Your task to perform on an android device: How much does the HisenseTV cost? Image 0: 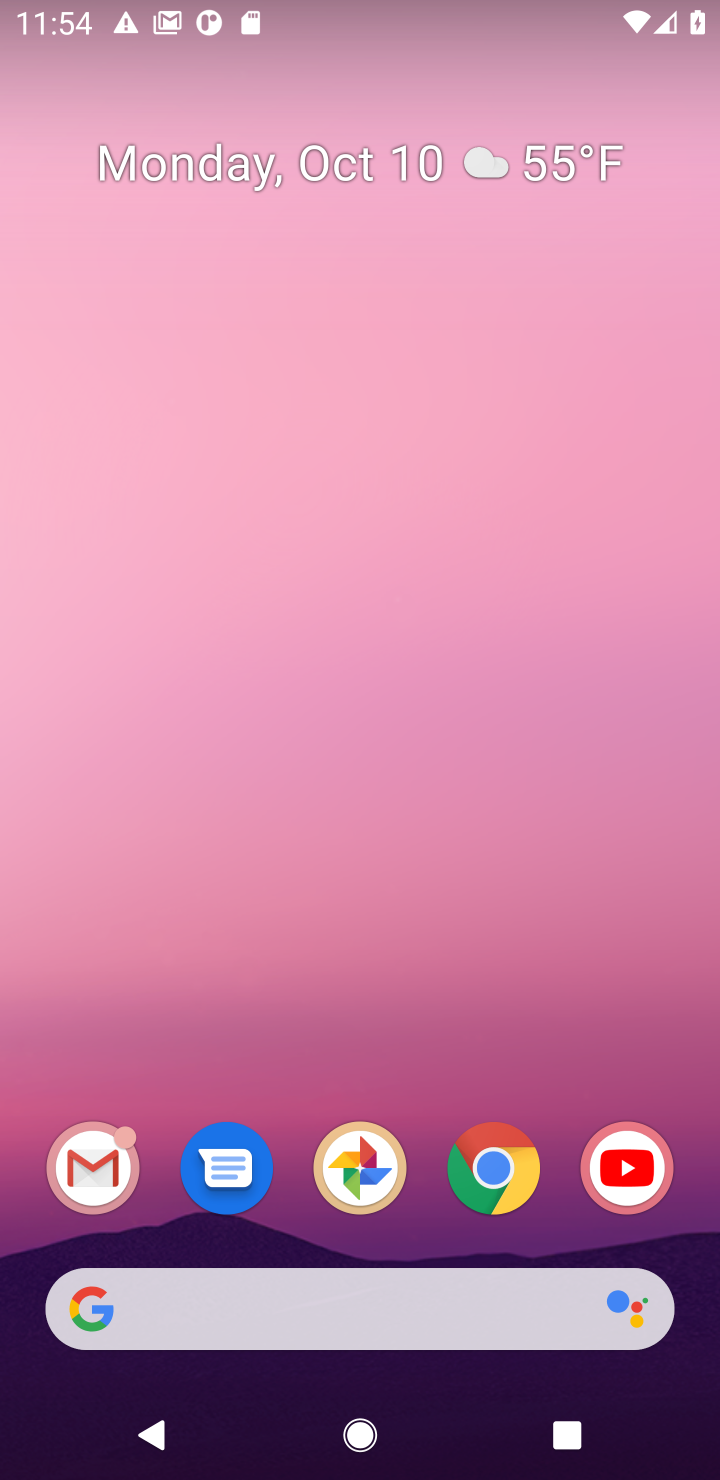
Step 0: drag from (329, 1216) to (357, 358)
Your task to perform on an android device: How much does the HisenseTV cost? Image 1: 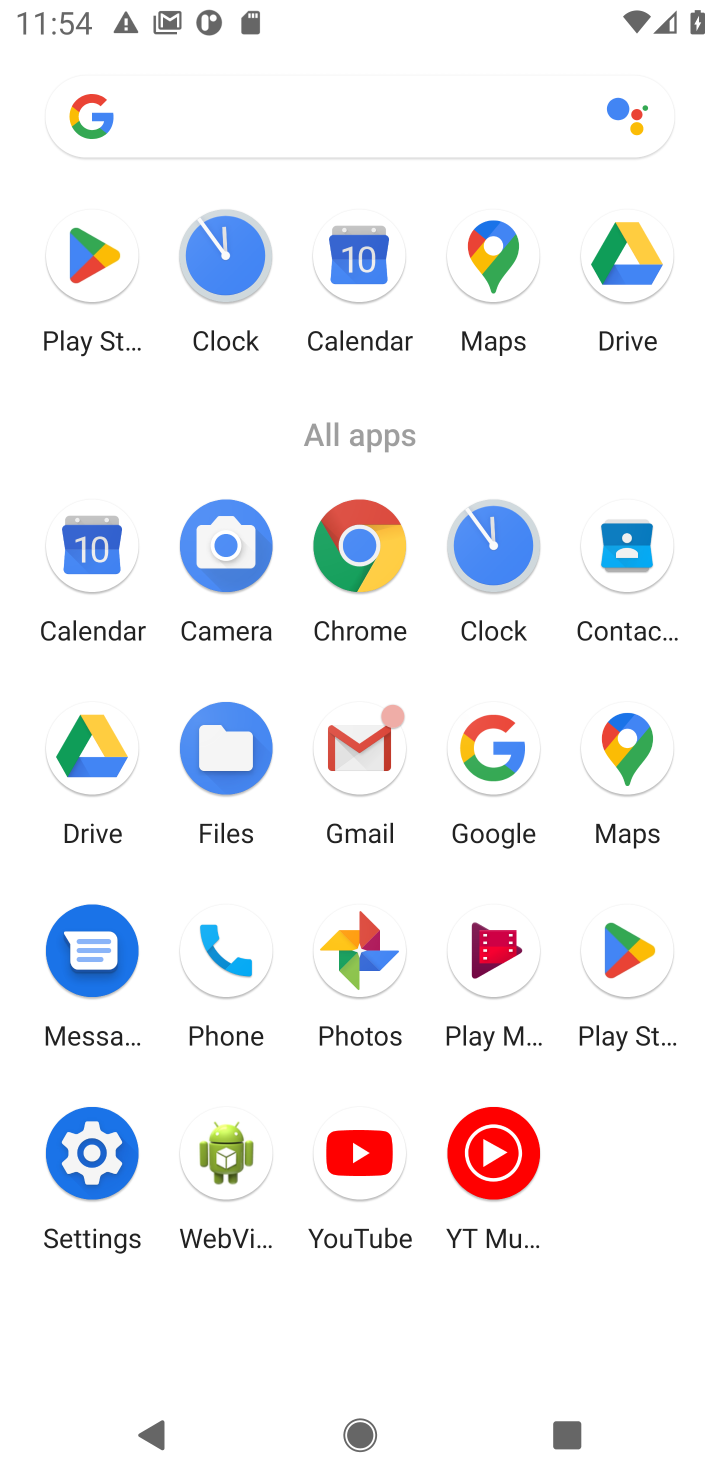
Step 1: click (524, 777)
Your task to perform on an android device: How much does the HisenseTV cost? Image 2: 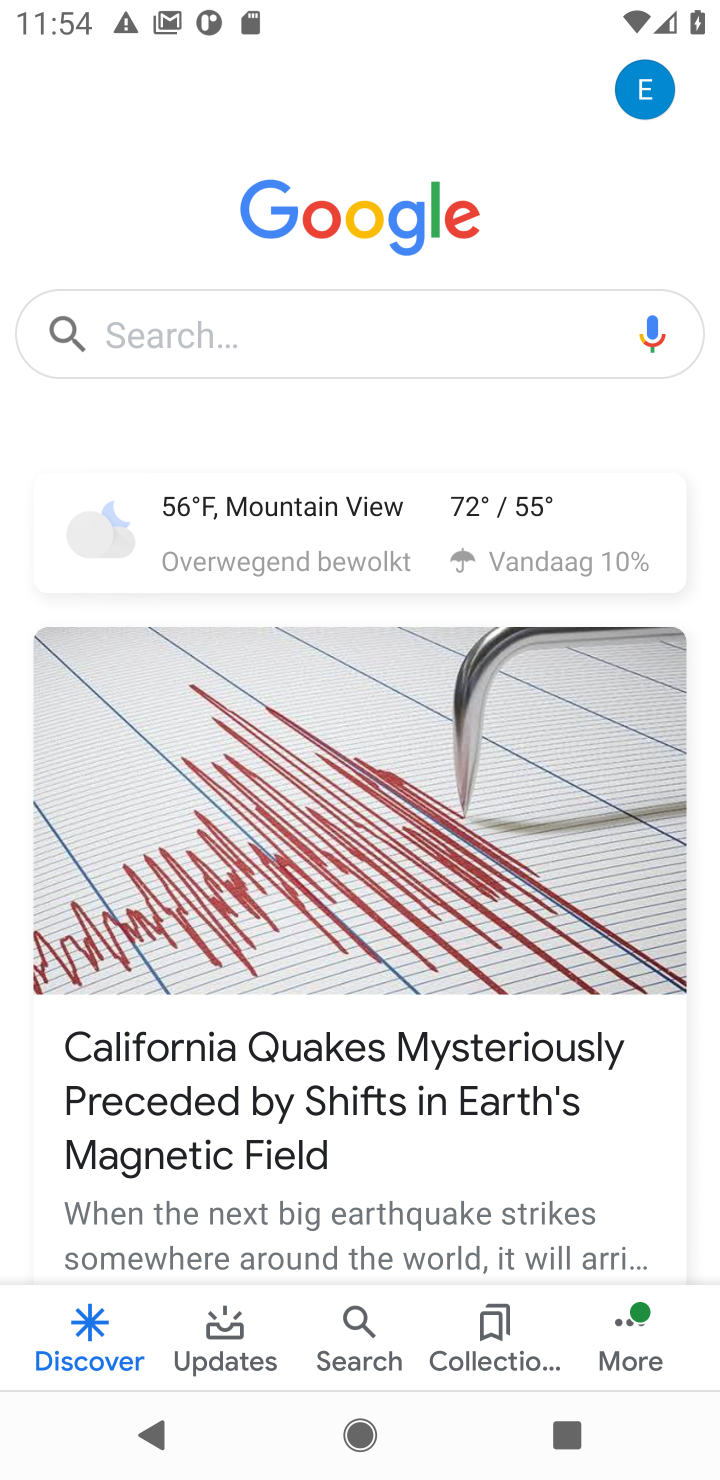
Step 2: click (421, 313)
Your task to perform on an android device: How much does the HisenseTV cost? Image 3: 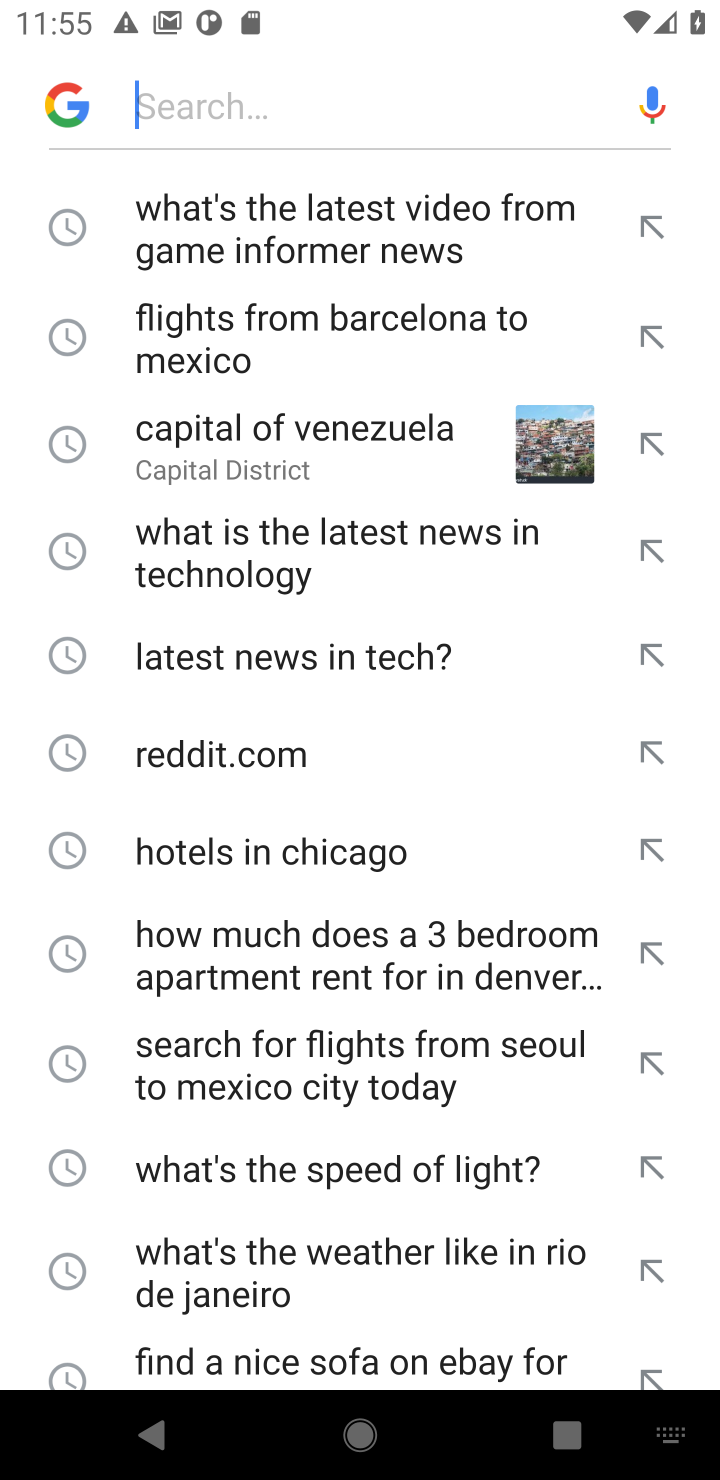
Step 3: type "HisenseTV cost?"
Your task to perform on an android device: How much does the HisenseTV cost? Image 4: 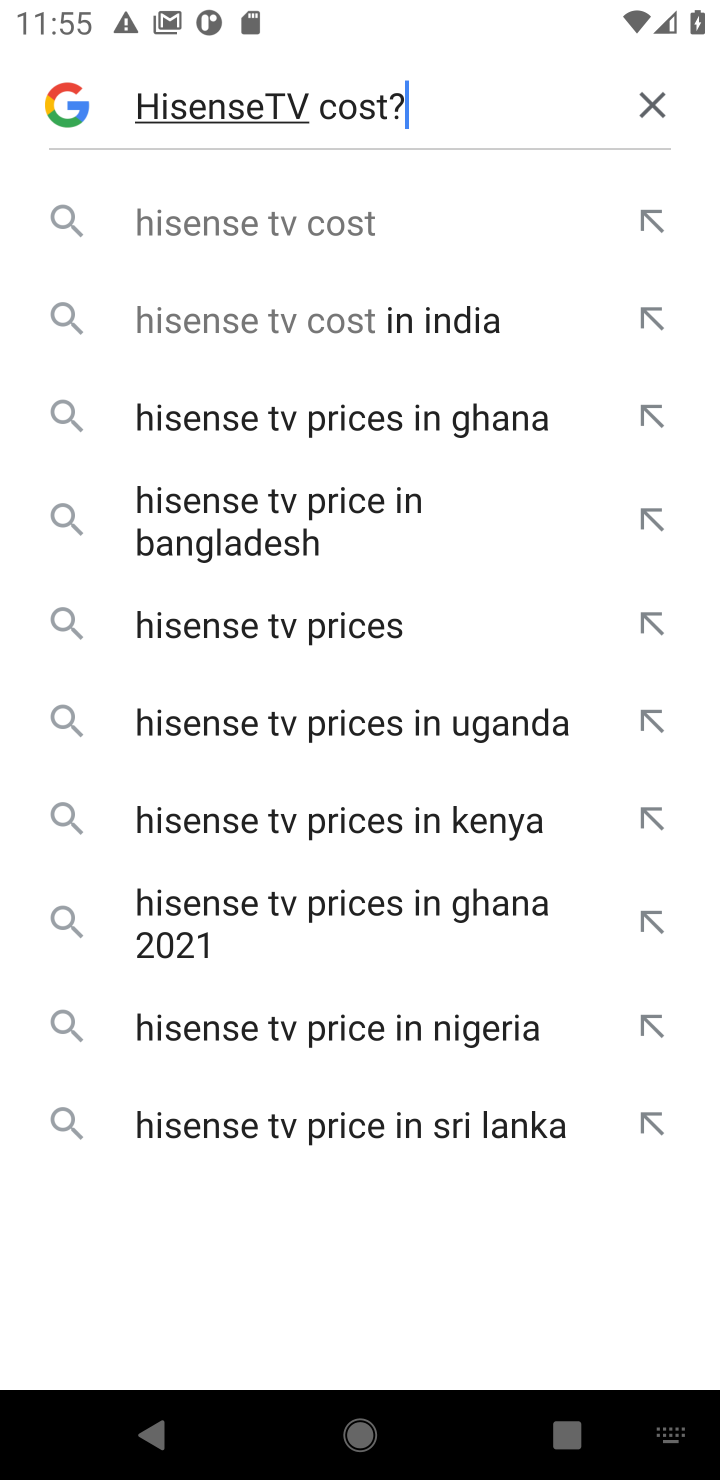
Step 4: click (408, 221)
Your task to perform on an android device: How much does the HisenseTV cost? Image 5: 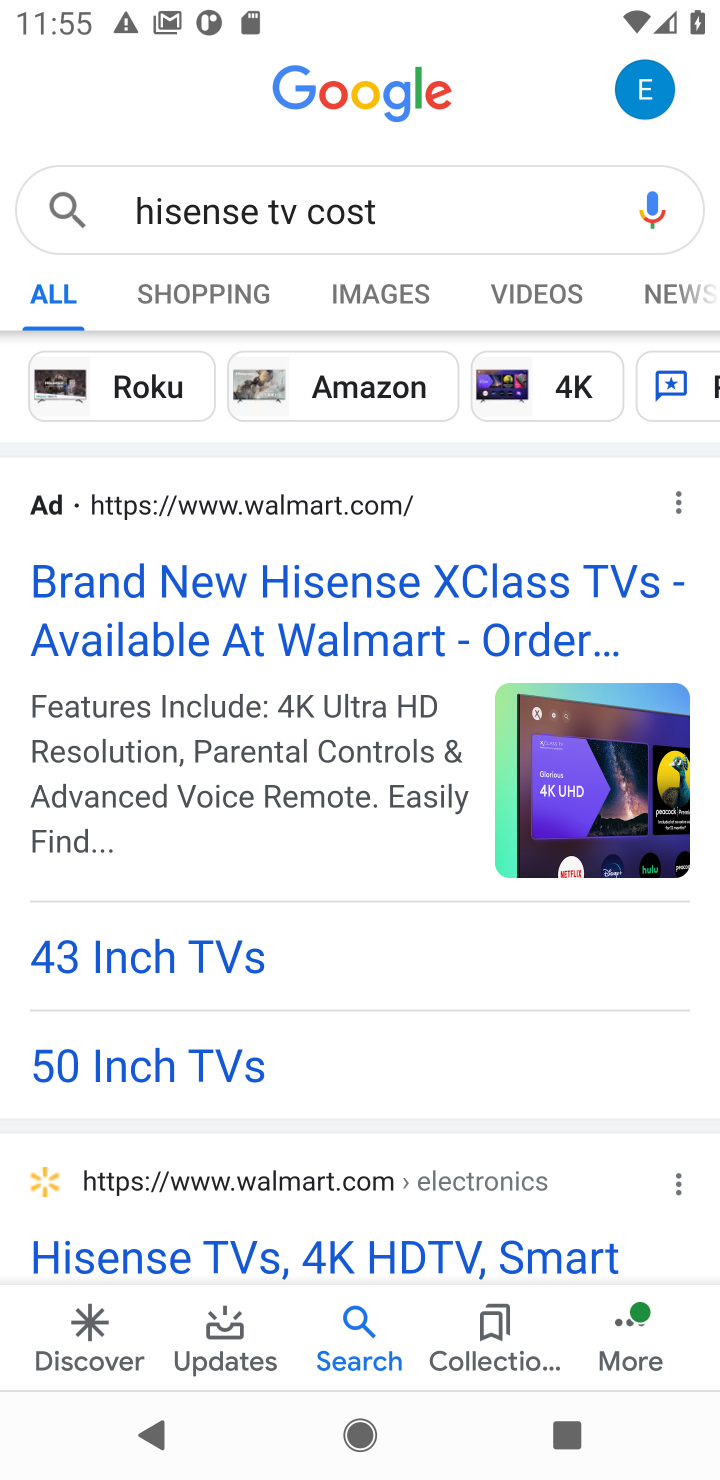
Step 5: click (226, 301)
Your task to perform on an android device: How much does the HisenseTV cost? Image 6: 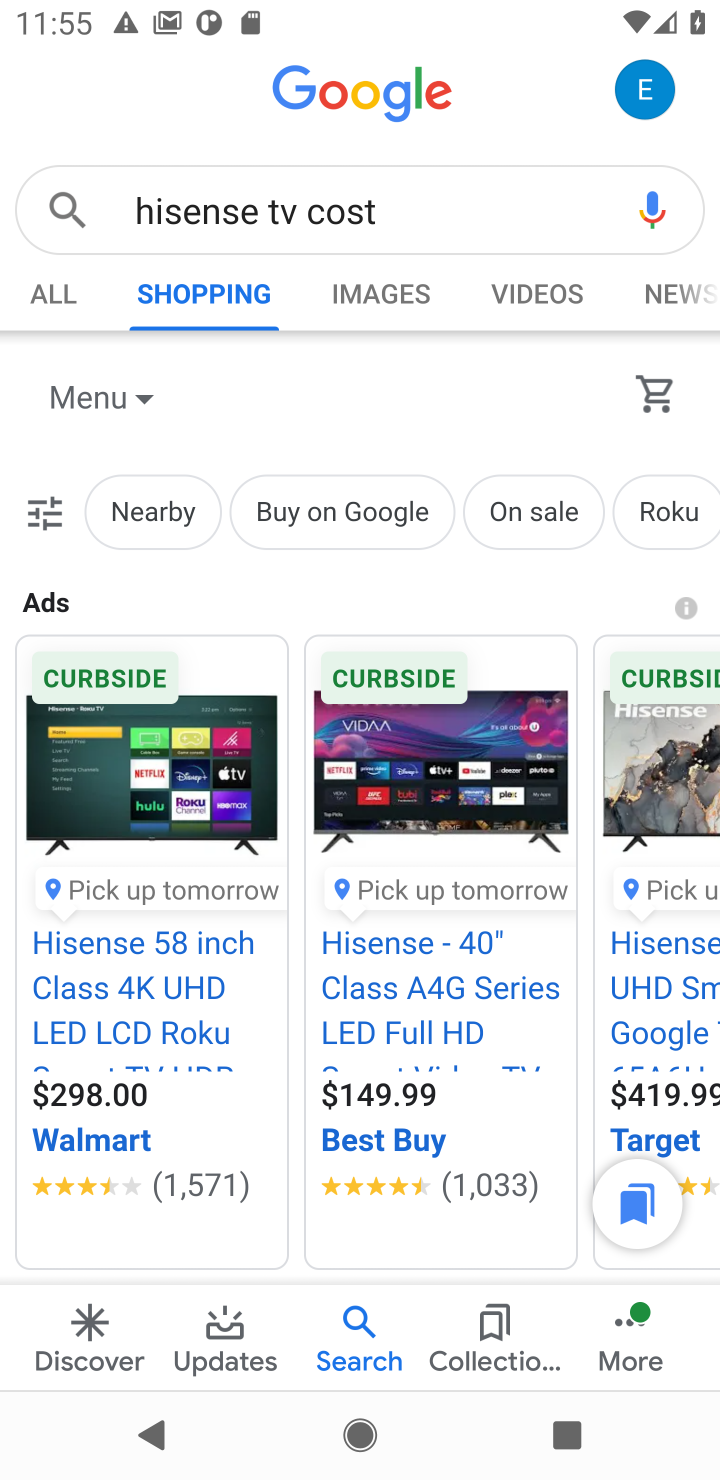
Step 6: task complete